Your task to perform on an android device: Do I have any events this weekend? Image 0: 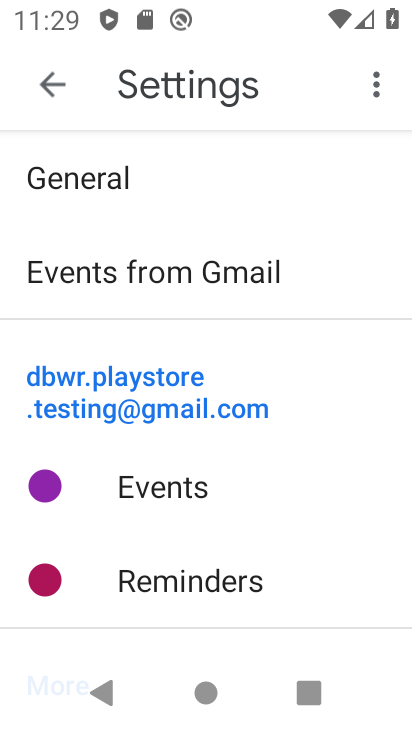
Step 0: press home button
Your task to perform on an android device: Do I have any events this weekend? Image 1: 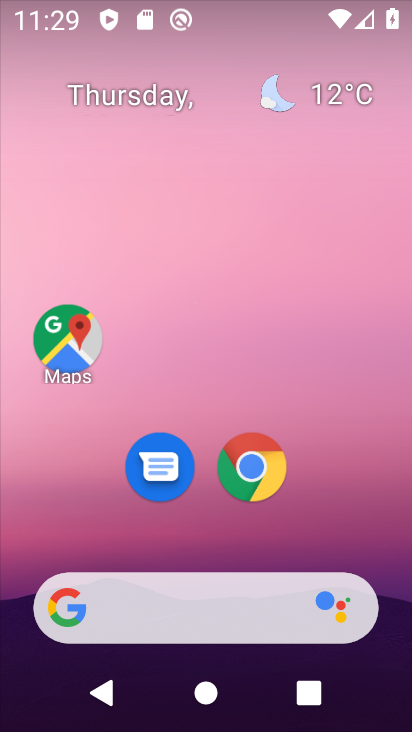
Step 1: drag from (358, 490) to (363, 16)
Your task to perform on an android device: Do I have any events this weekend? Image 2: 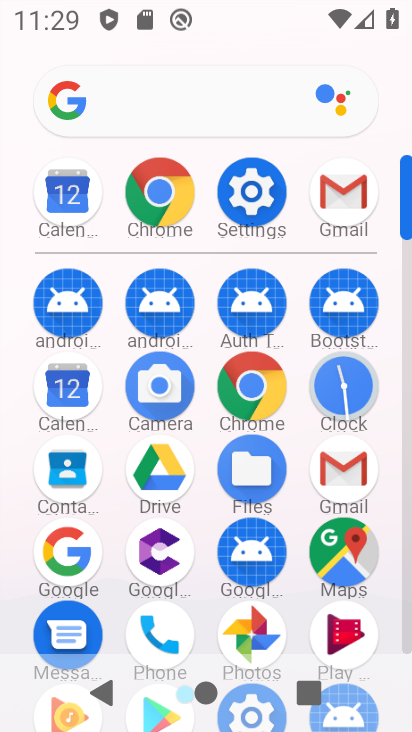
Step 2: drag from (384, 616) to (382, 344)
Your task to perform on an android device: Do I have any events this weekend? Image 3: 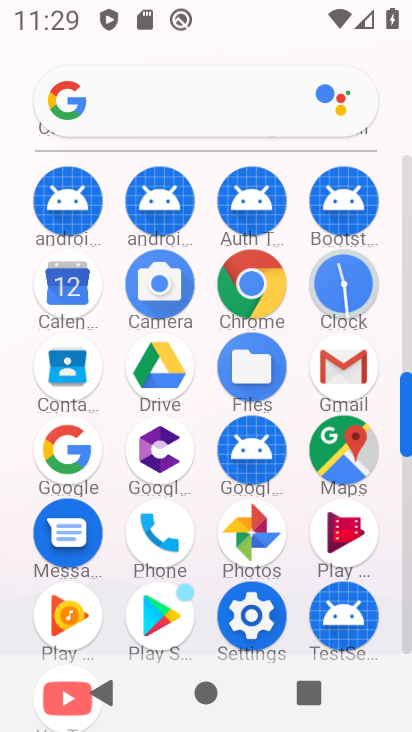
Step 3: click (59, 443)
Your task to perform on an android device: Do I have any events this weekend? Image 4: 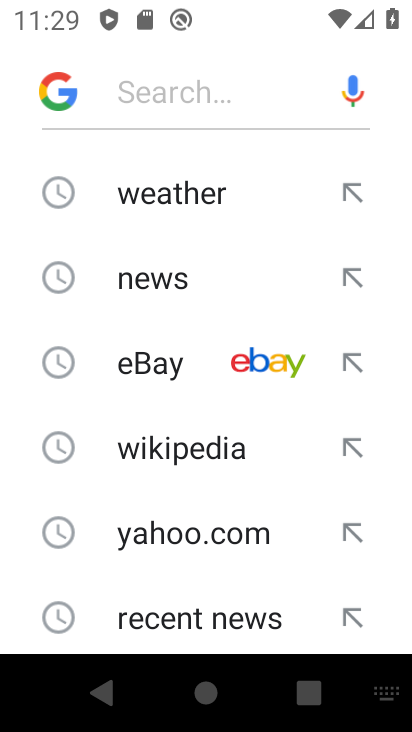
Step 4: click (69, 98)
Your task to perform on an android device: Do I have any events this weekend? Image 5: 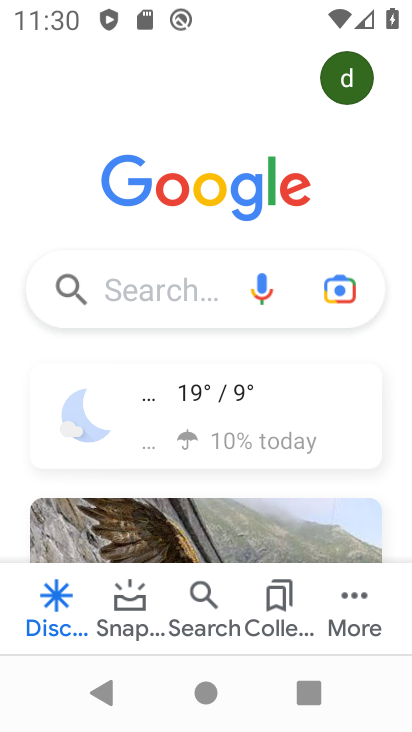
Step 5: click (219, 388)
Your task to perform on an android device: Do I have any events this weekend? Image 6: 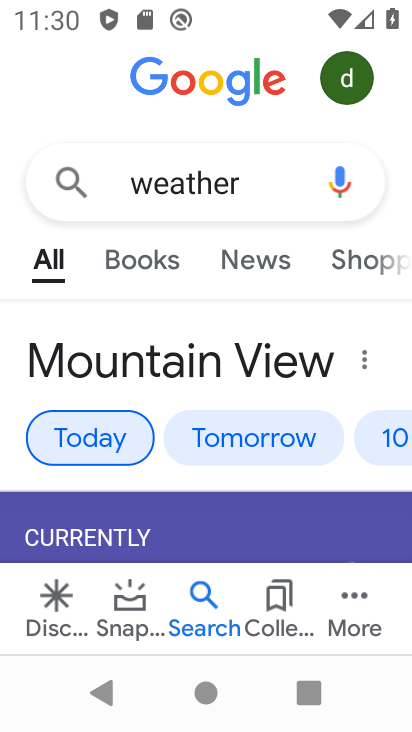
Step 6: drag from (301, 540) to (304, 167)
Your task to perform on an android device: Do I have any events this weekend? Image 7: 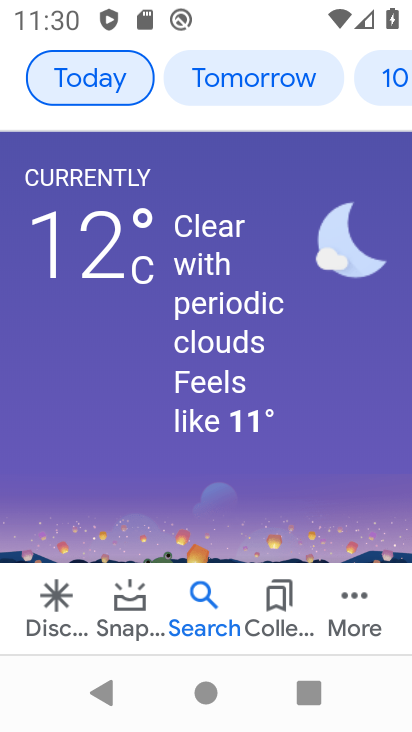
Step 7: click (252, 308)
Your task to perform on an android device: Do I have any events this weekend? Image 8: 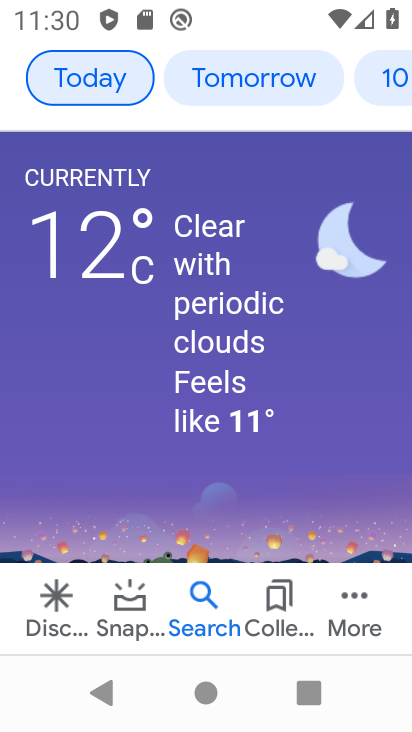
Step 8: task complete